Your task to perform on an android device: Open sound settings Image 0: 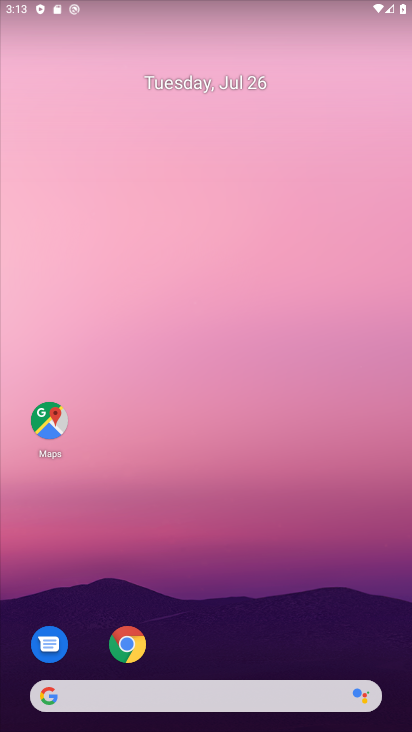
Step 0: drag from (224, 645) to (199, 169)
Your task to perform on an android device: Open sound settings Image 1: 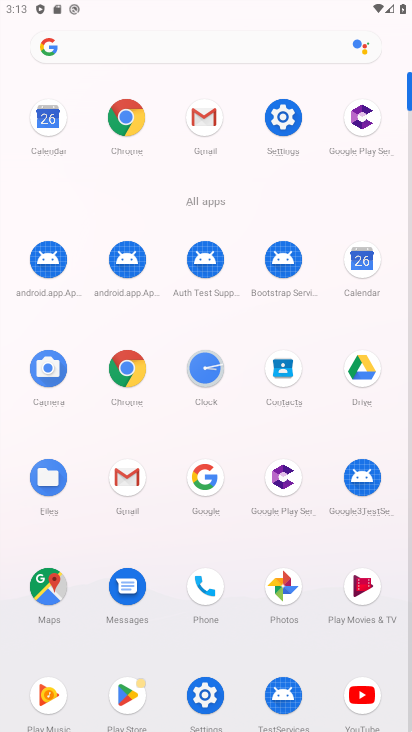
Step 1: click (208, 372)
Your task to perform on an android device: Open sound settings Image 2: 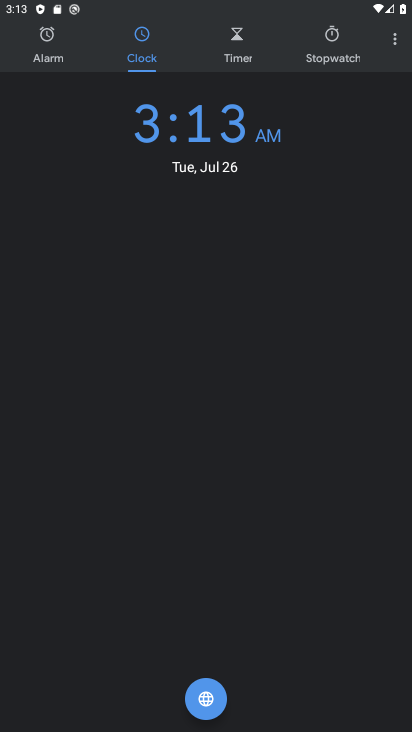
Step 2: press home button
Your task to perform on an android device: Open sound settings Image 3: 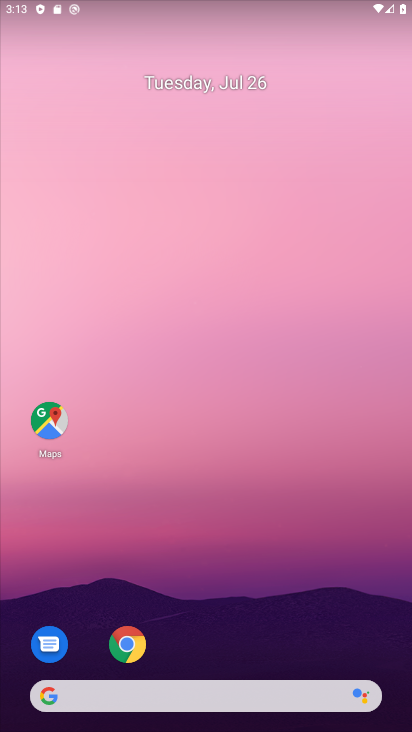
Step 3: drag from (259, 629) to (204, 165)
Your task to perform on an android device: Open sound settings Image 4: 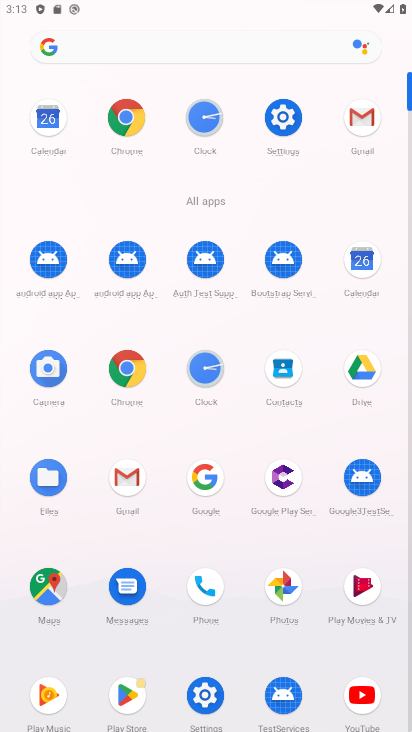
Step 4: click (287, 108)
Your task to perform on an android device: Open sound settings Image 5: 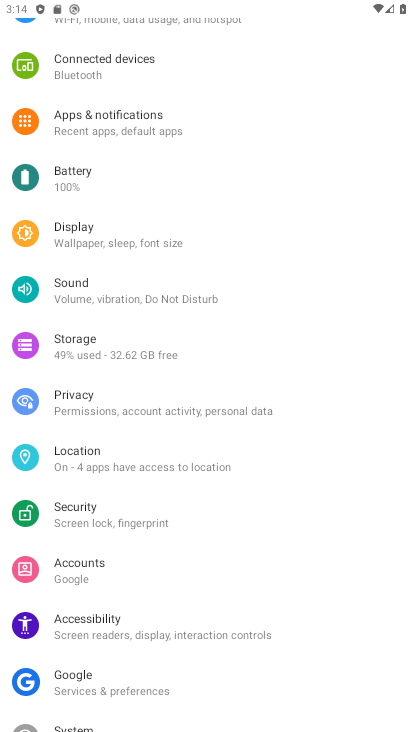
Step 5: click (109, 288)
Your task to perform on an android device: Open sound settings Image 6: 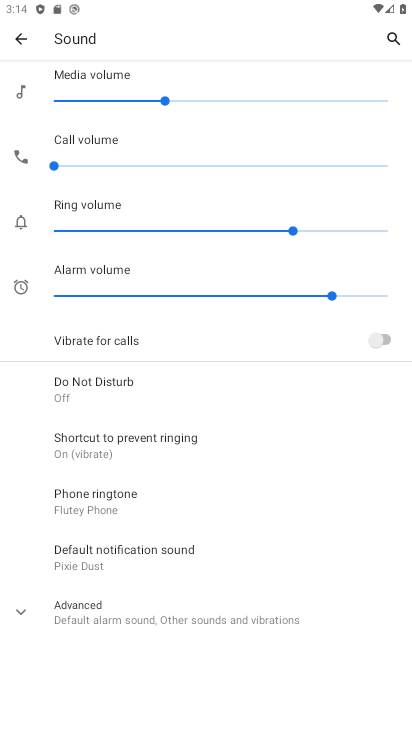
Step 6: task complete